Your task to perform on an android device: add a contact Image 0: 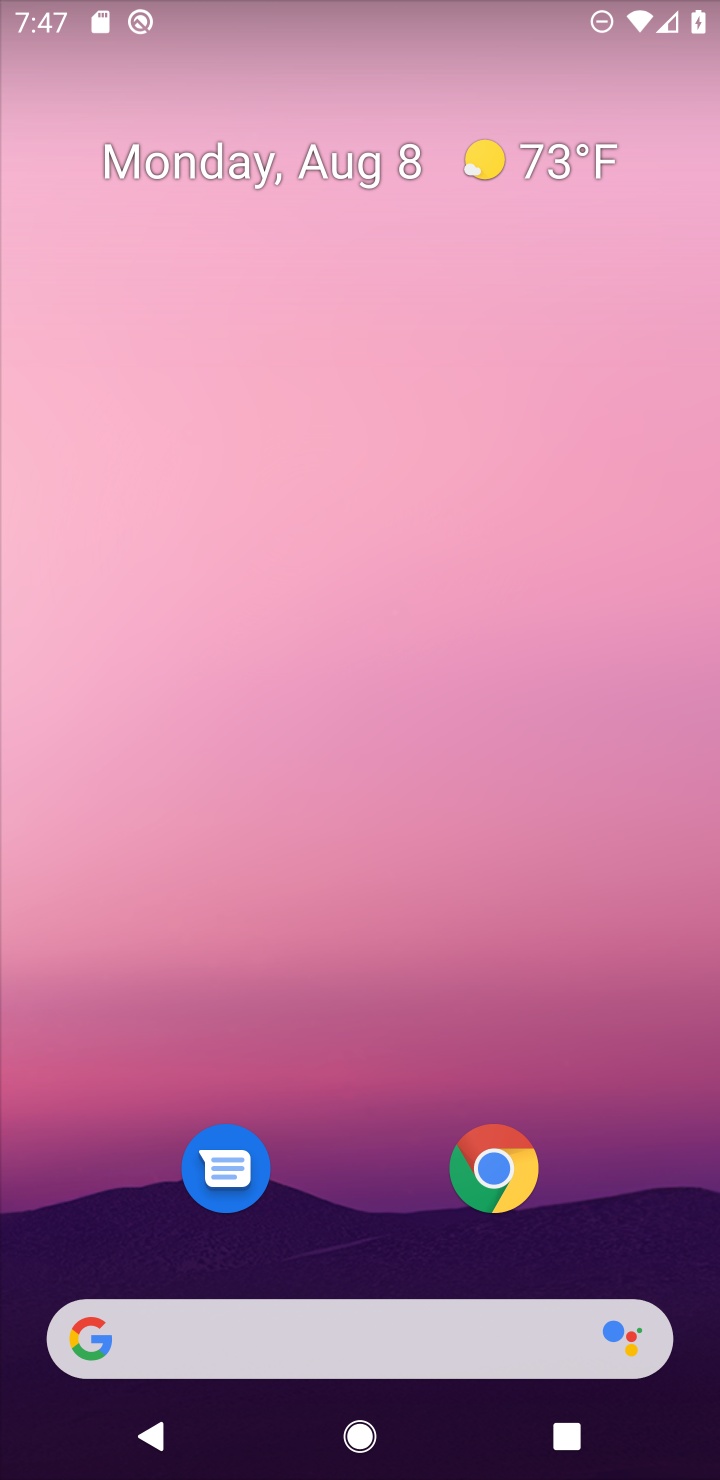
Step 0: drag from (298, 1315) to (693, 5)
Your task to perform on an android device: add a contact Image 1: 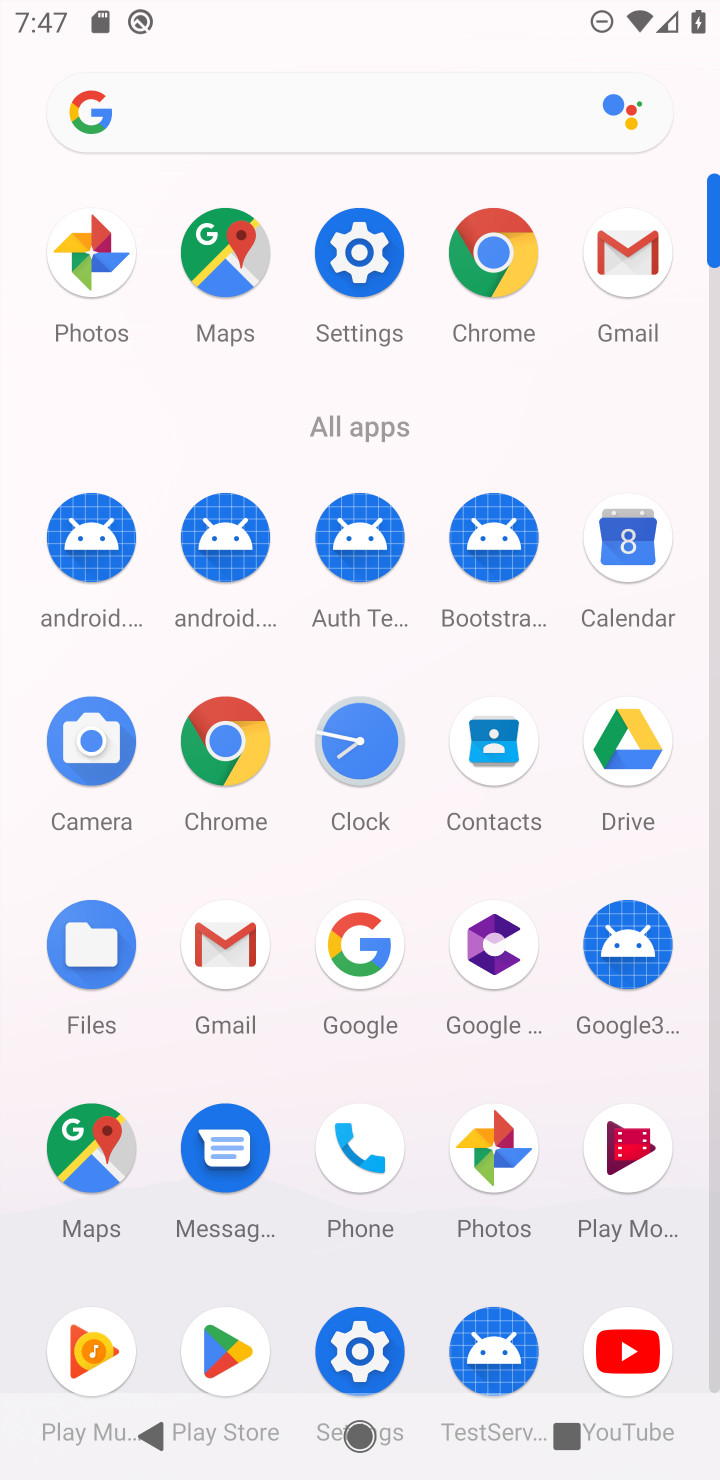
Step 1: click (487, 745)
Your task to perform on an android device: add a contact Image 2: 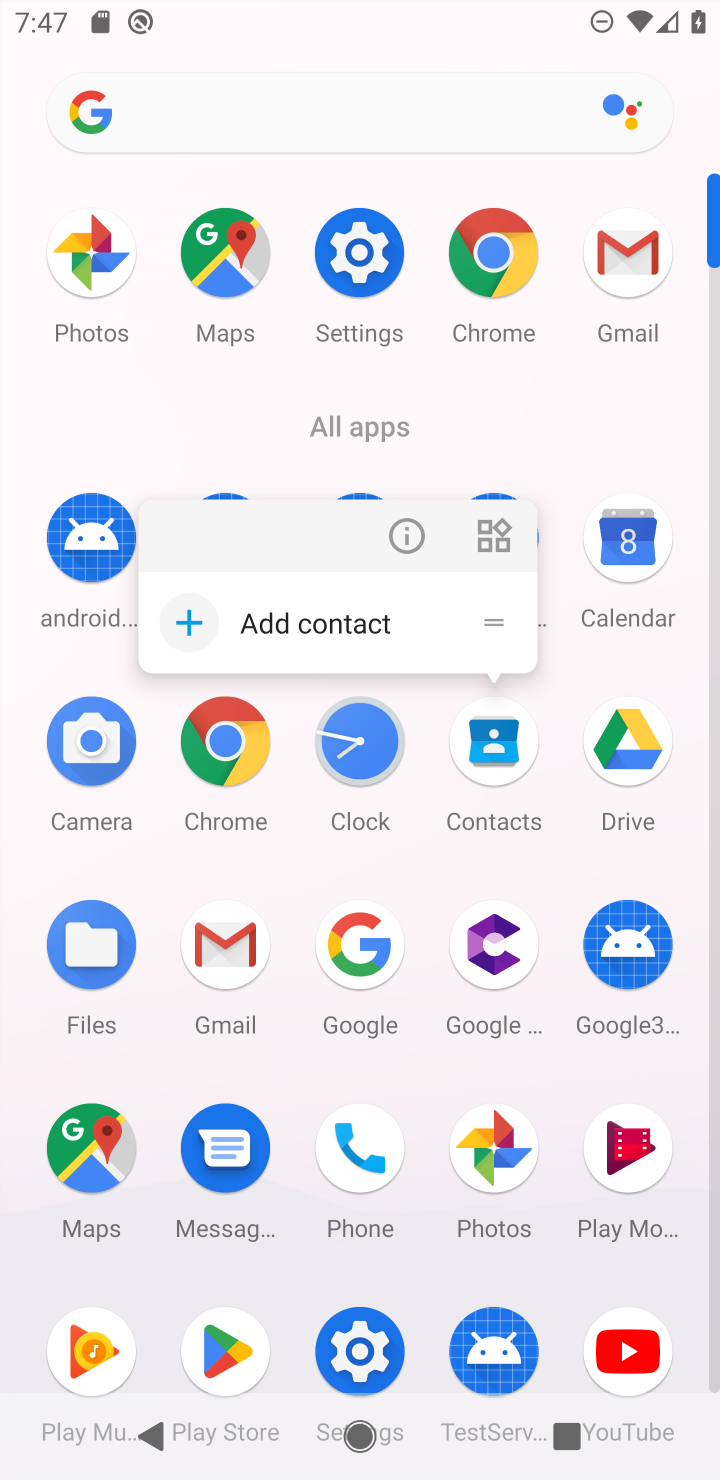
Step 2: click (501, 745)
Your task to perform on an android device: add a contact Image 3: 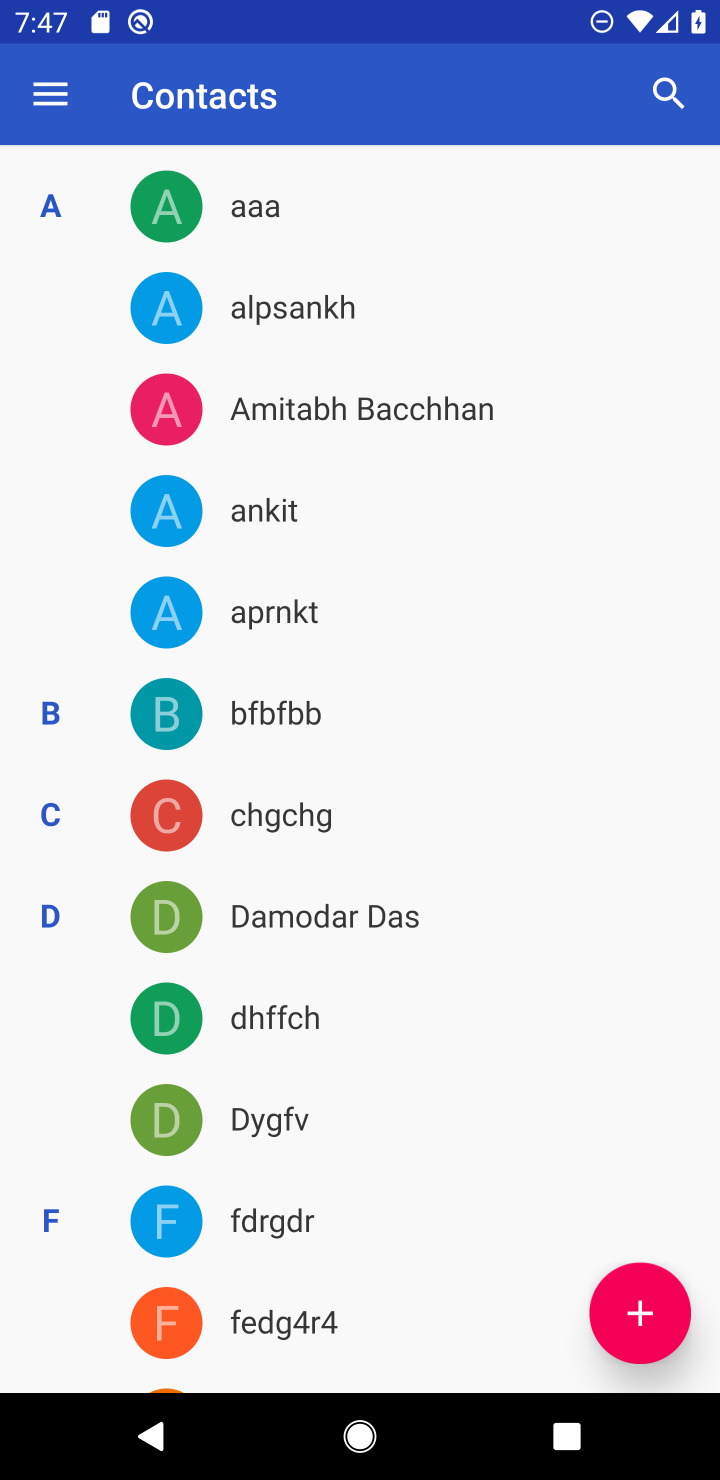
Step 3: click (626, 1305)
Your task to perform on an android device: add a contact Image 4: 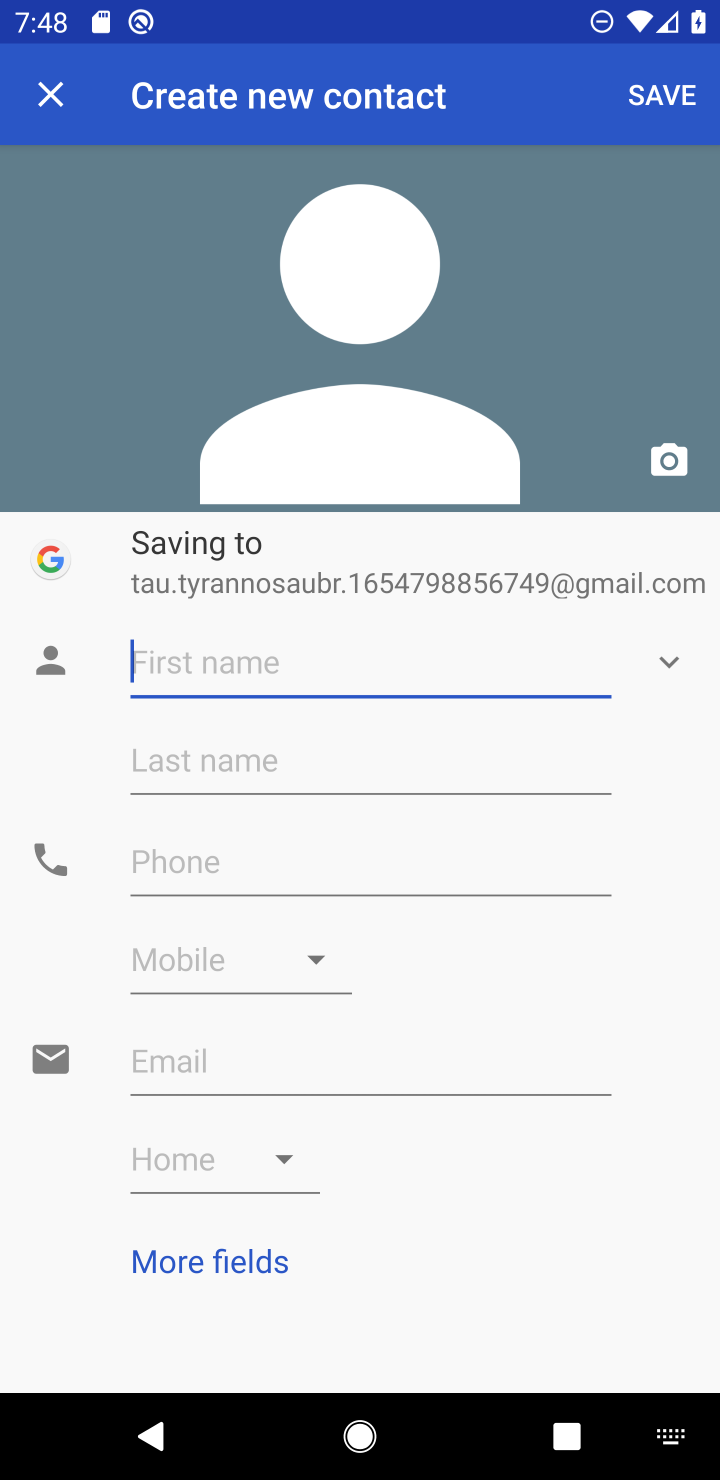
Step 4: type "wiruythgjfkv"
Your task to perform on an android device: add a contact Image 5: 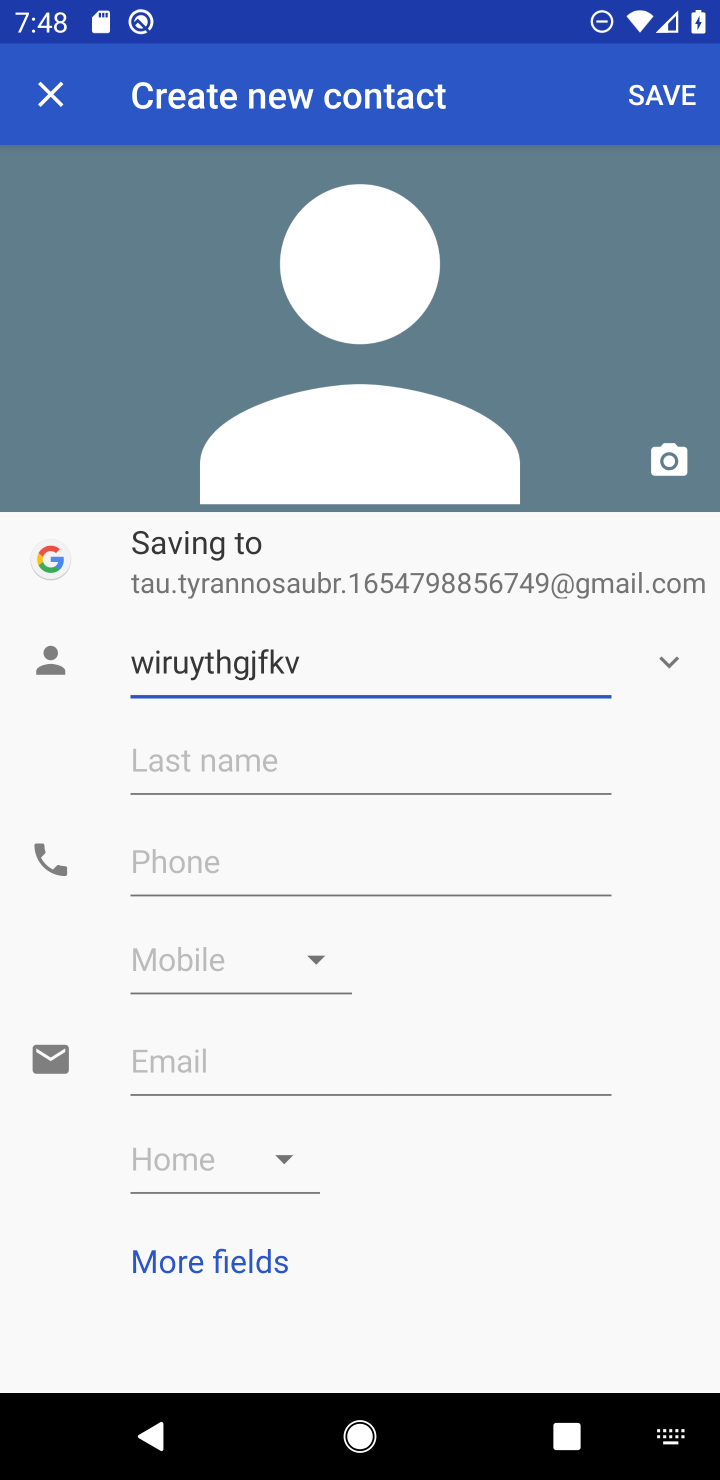
Step 5: click (171, 864)
Your task to perform on an android device: add a contact Image 6: 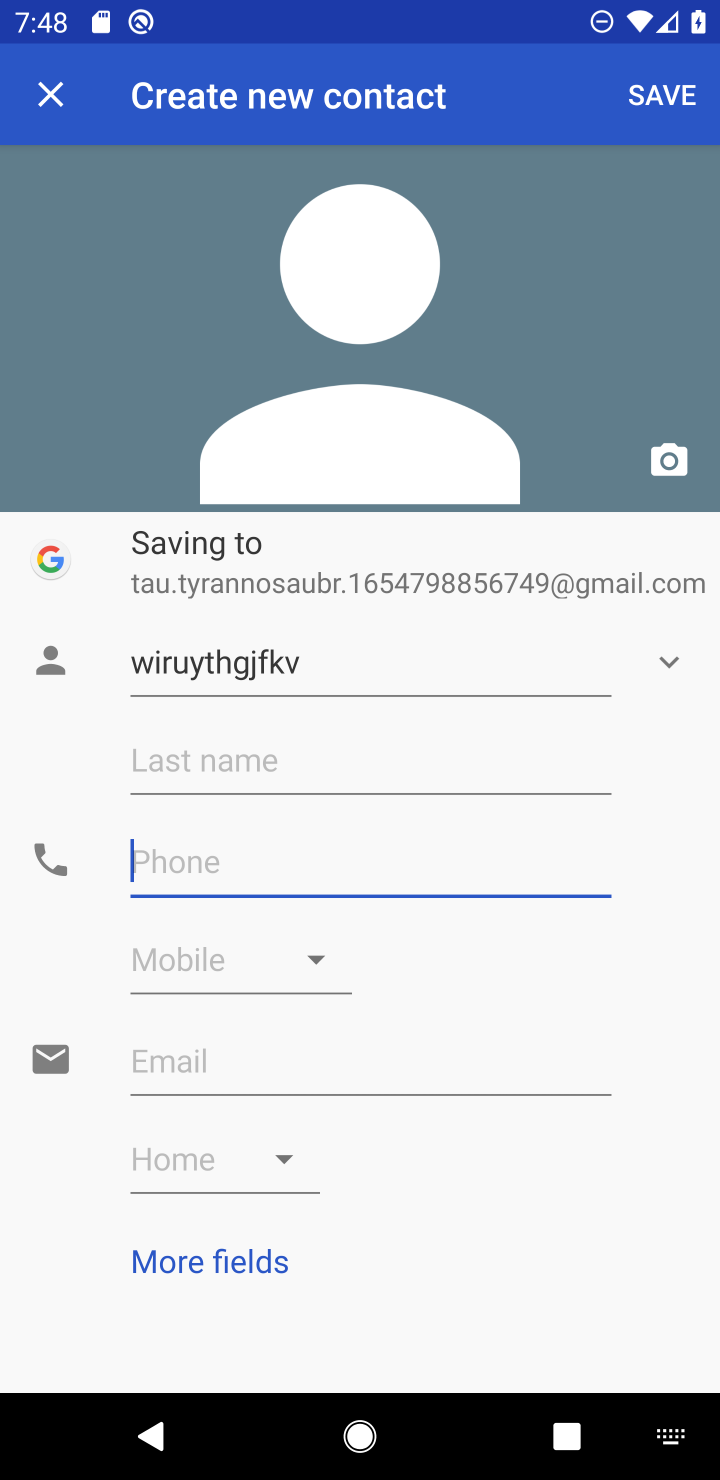
Step 6: type "1846657686"
Your task to perform on an android device: add a contact Image 7: 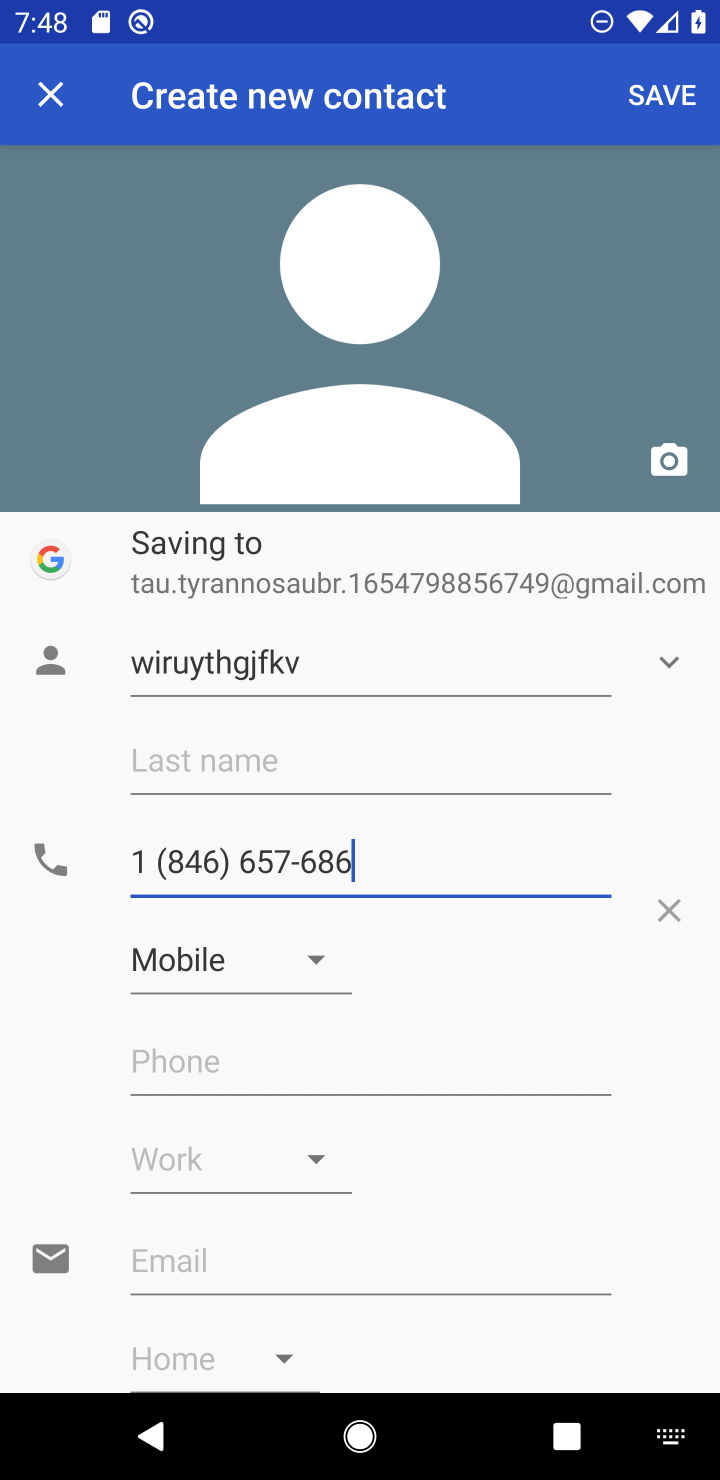
Step 7: click (667, 95)
Your task to perform on an android device: add a contact Image 8: 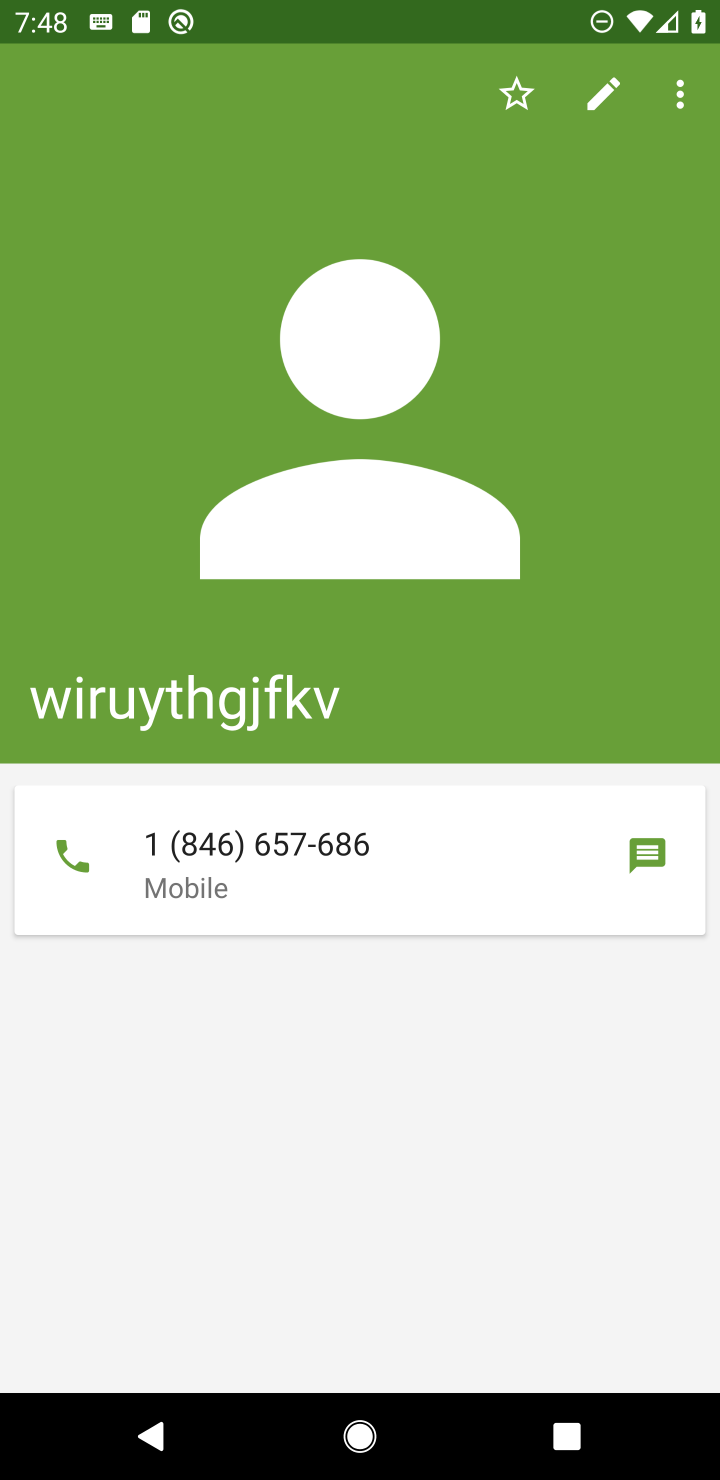
Step 8: task complete